Your task to perform on an android device: Show me the alarms in the clock app Image 0: 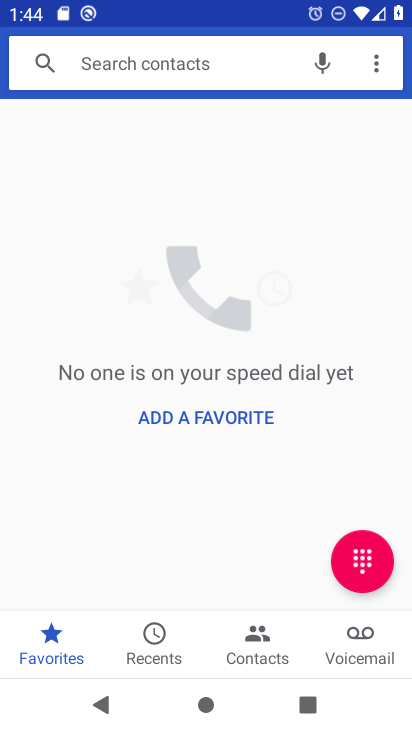
Step 0: press home button
Your task to perform on an android device: Show me the alarms in the clock app Image 1: 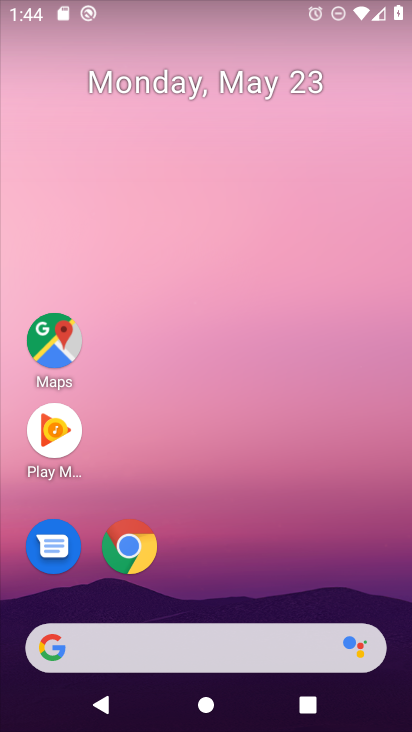
Step 1: drag from (276, 625) to (201, 2)
Your task to perform on an android device: Show me the alarms in the clock app Image 2: 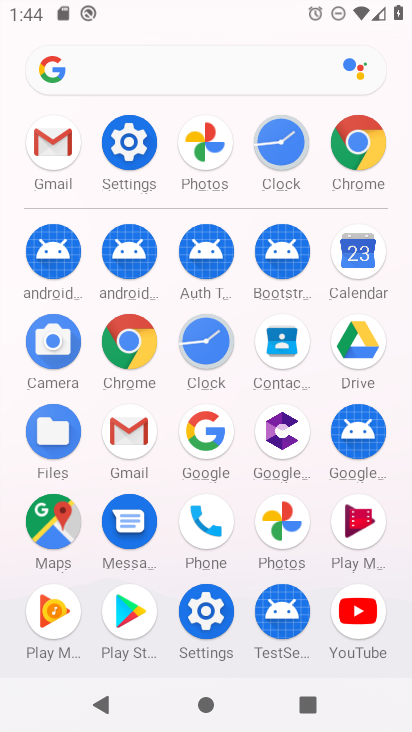
Step 2: click (290, 162)
Your task to perform on an android device: Show me the alarms in the clock app Image 3: 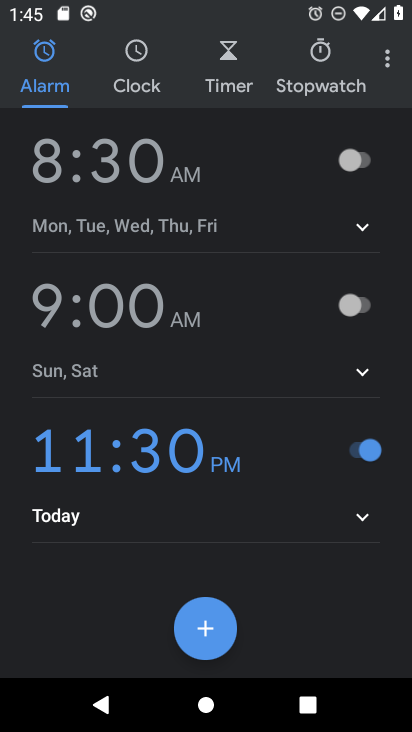
Step 3: click (142, 58)
Your task to perform on an android device: Show me the alarms in the clock app Image 4: 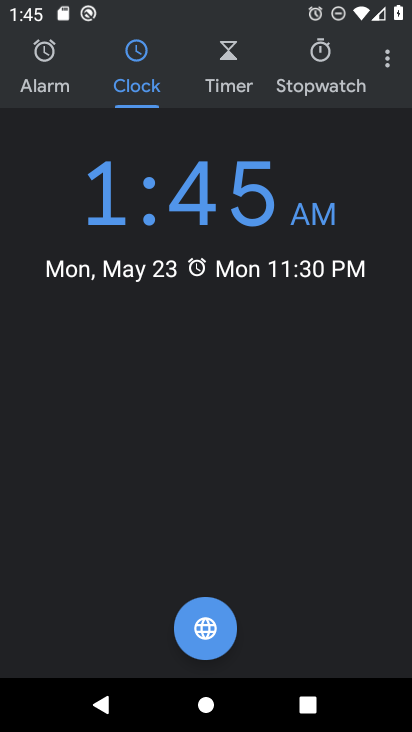
Step 4: click (46, 81)
Your task to perform on an android device: Show me the alarms in the clock app Image 5: 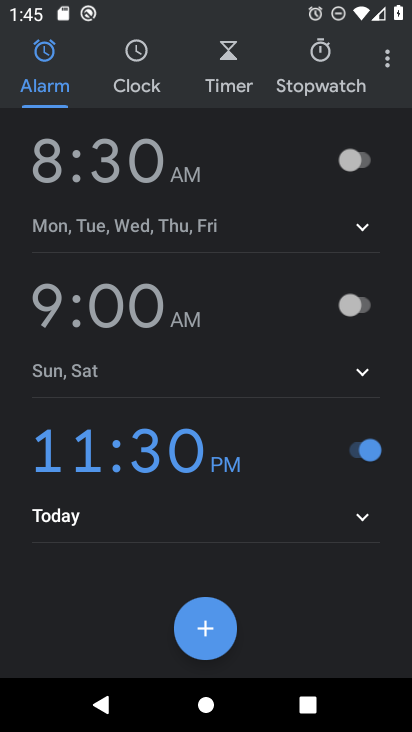
Step 5: task complete